Your task to perform on an android device: check out phone information Image 0: 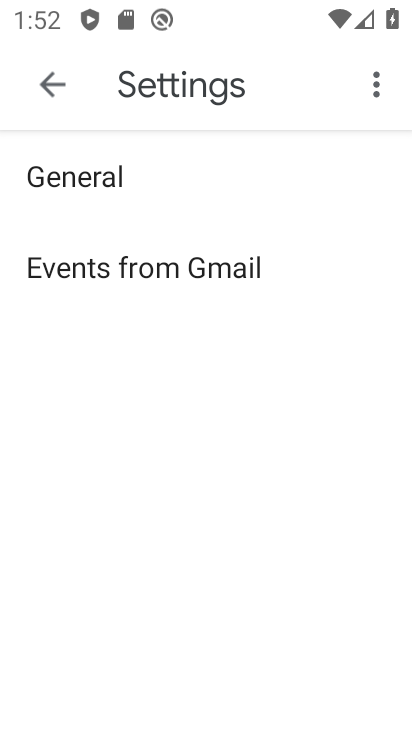
Step 0: press home button
Your task to perform on an android device: check out phone information Image 1: 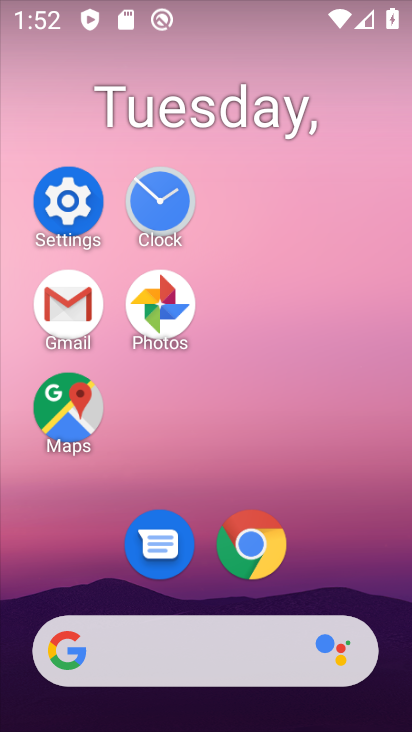
Step 1: click (82, 204)
Your task to perform on an android device: check out phone information Image 2: 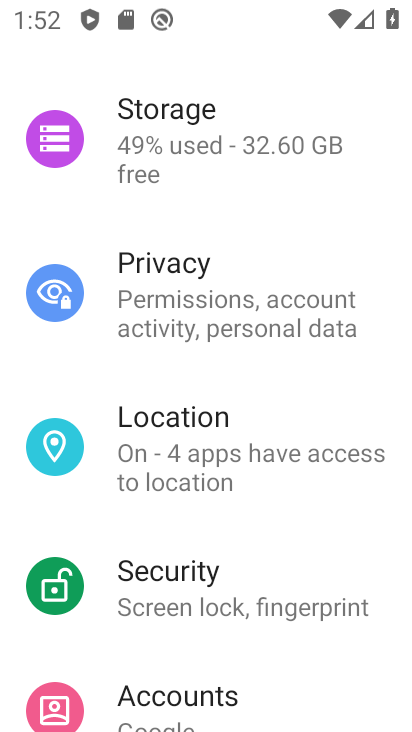
Step 2: drag from (322, 668) to (305, 126)
Your task to perform on an android device: check out phone information Image 3: 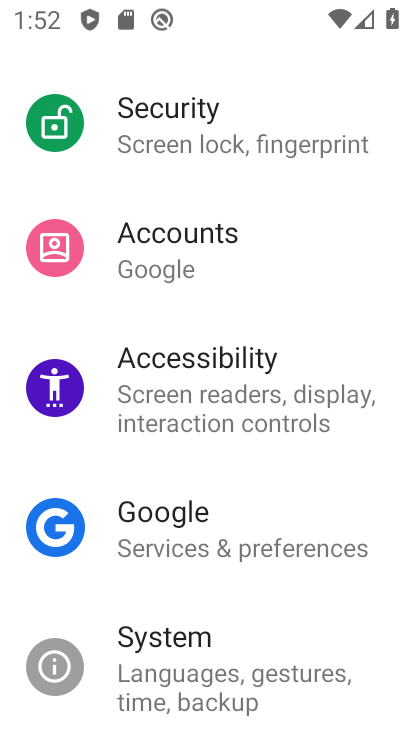
Step 3: drag from (294, 658) to (268, 181)
Your task to perform on an android device: check out phone information Image 4: 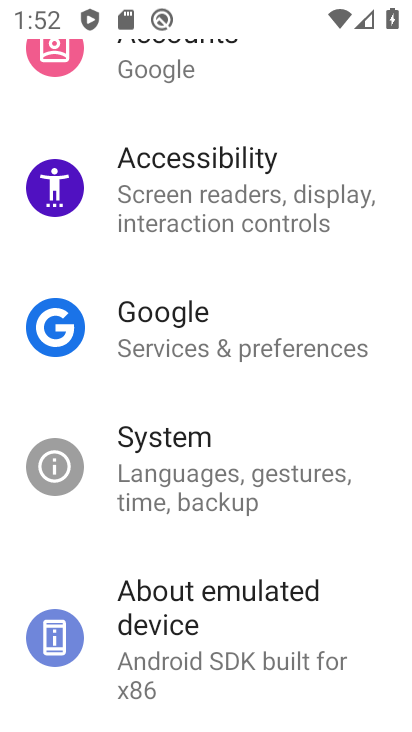
Step 4: click (255, 642)
Your task to perform on an android device: check out phone information Image 5: 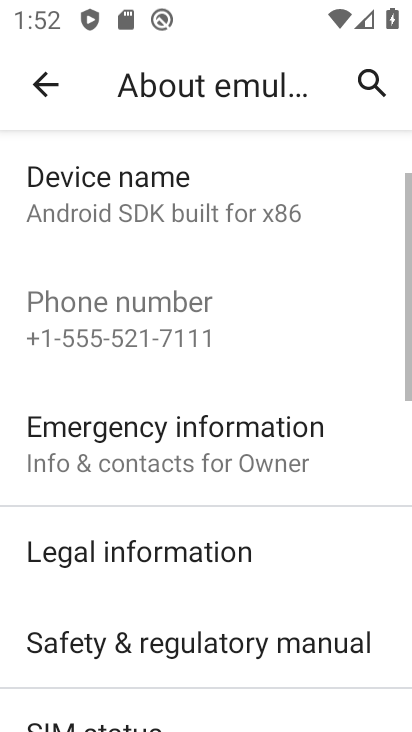
Step 5: drag from (278, 569) to (265, 193)
Your task to perform on an android device: check out phone information Image 6: 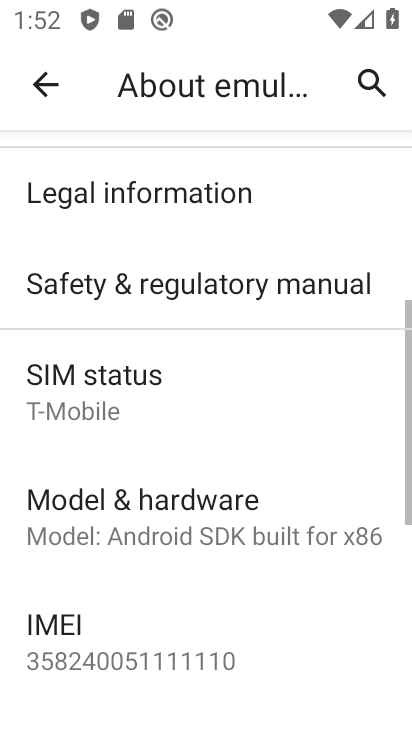
Step 6: click (237, 528)
Your task to perform on an android device: check out phone information Image 7: 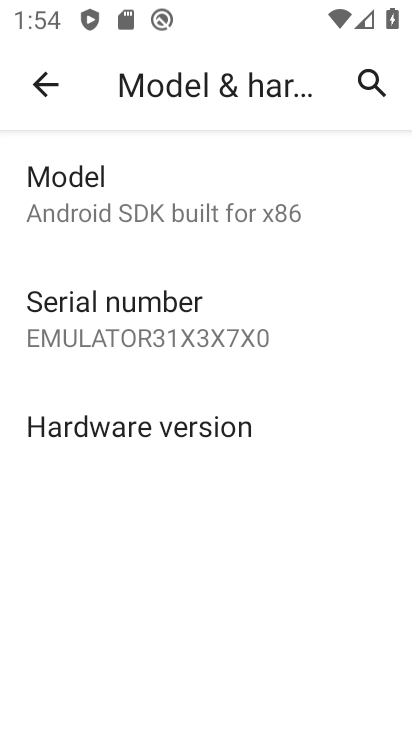
Step 7: task complete